Your task to perform on an android device: Go to CNN.com Image 0: 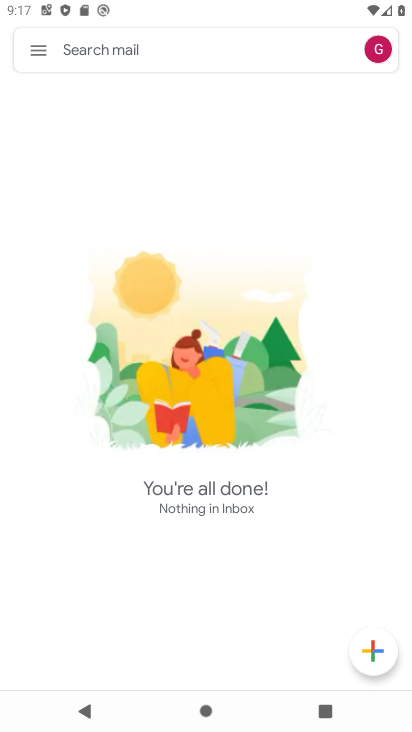
Step 0: press home button
Your task to perform on an android device: Go to CNN.com Image 1: 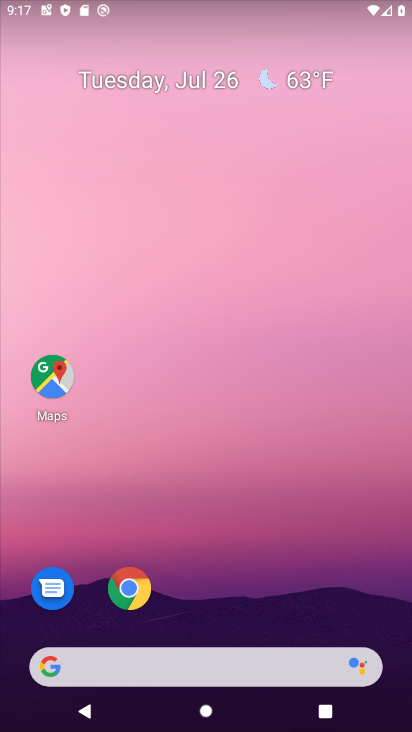
Step 1: click (183, 652)
Your task to perform on an android device: Go to CNN.com Image 2: 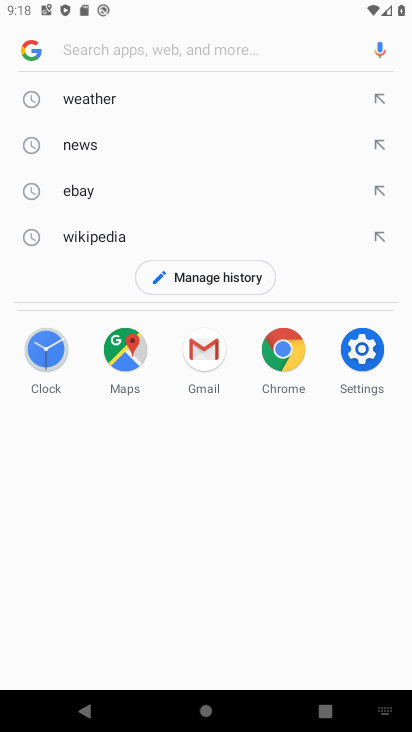
Step 2: type "cnn"
Your task to perform on an android device: Go to CNN.com Image 3: 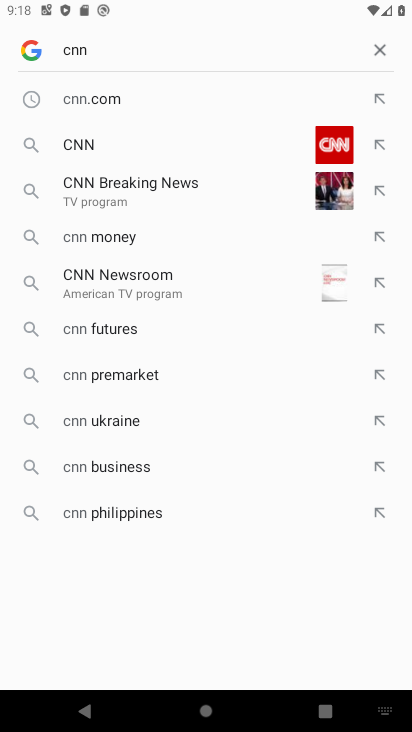
Step 3: click (303, 146)
Your task to perform on an android device: Go to CNN.com Image 4: 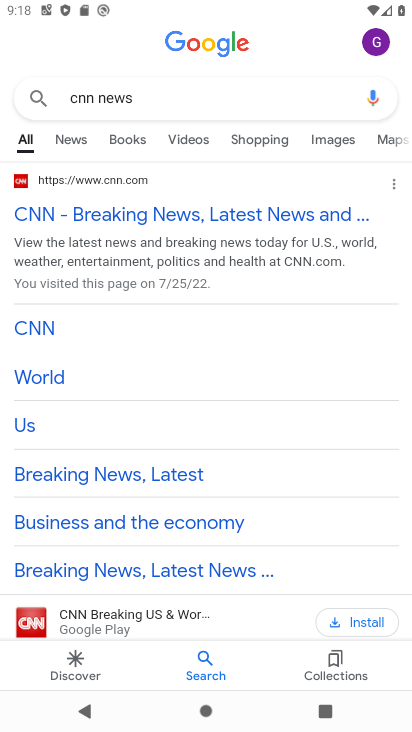
Step 4: click (105, 223)
Your task to perform on an android device: Go to CNN.com Image 5: 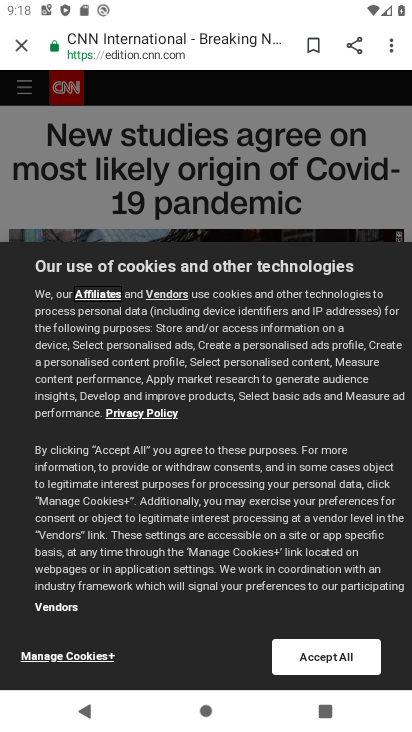
Step 5: task complete